Your task to perform on an android device: Open the calendar and show me this week's events Image 0: 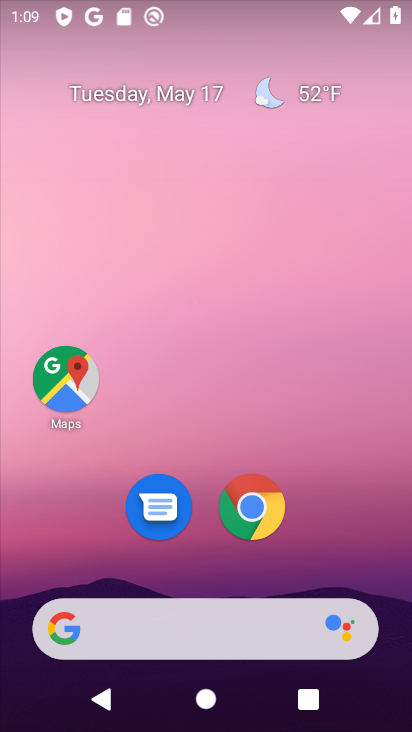
Step 0: drag from (204, 553) to (253, 58)
Your task to perform on an android device: Open the calendar and show me this week's events Image 1: 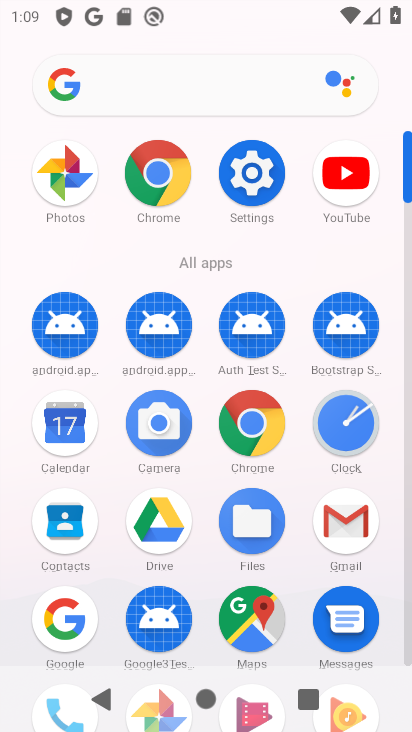
Step 1: click (50, 412)
Your task to perform on an android device: Open the calendar and show me this week's events Image 2: 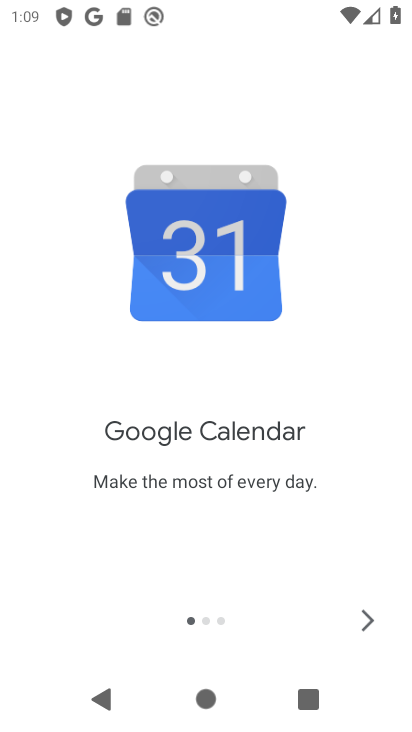
Step 2: click (362, 612)
Your task to perform on an android device: Open the calendar and show me this week's events Image 3: 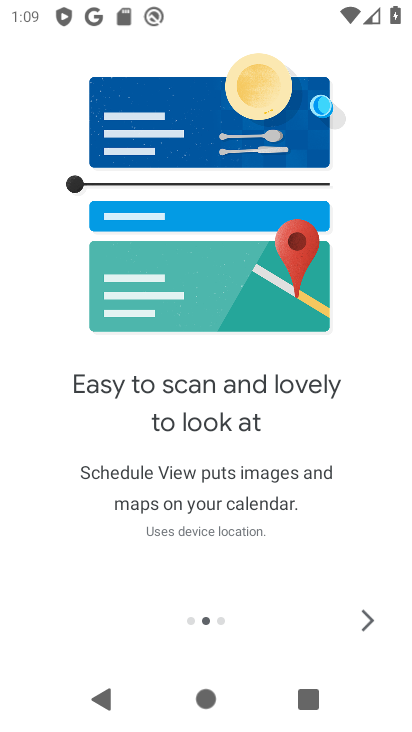
Step 3: click (362, 612)
Your task to perform on an android device: Open the calendar and show me this week's events Image 4: 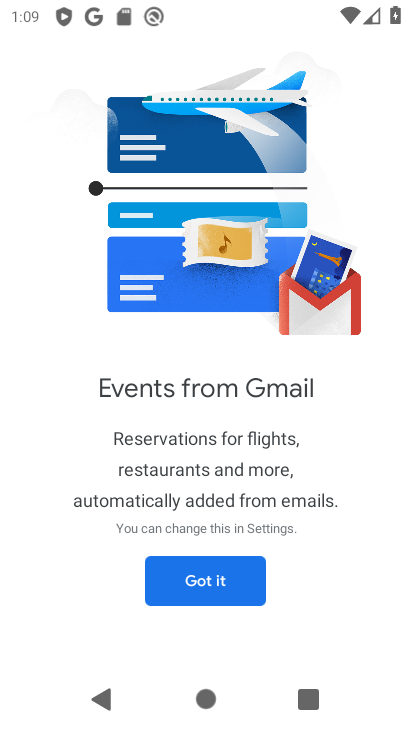
Step 4: click (208, 575)
Your task to perform on an android device: Open the calendar and show me this week's events Image 5: 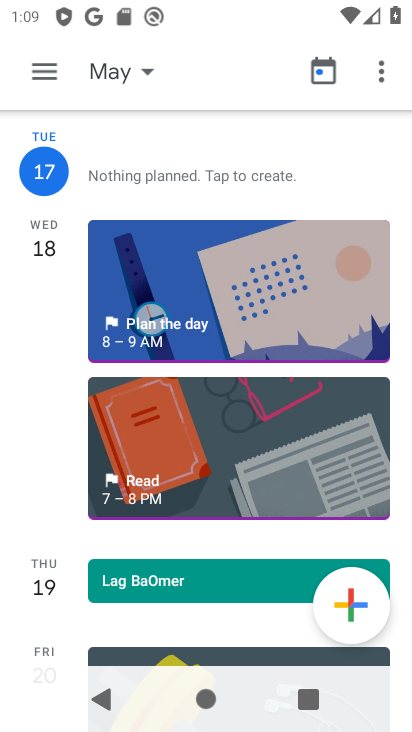
Step 5: click (142, 71)
Your task to perform on an android device: Open the calendar and show me this week's events Image 6: 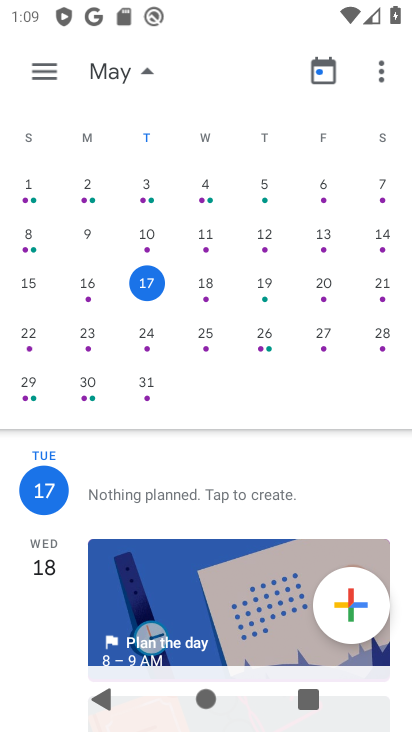
Step 6: click (322, 290)
Your task to perform on an android device: Open the calendar and show me this week's events Image 7: 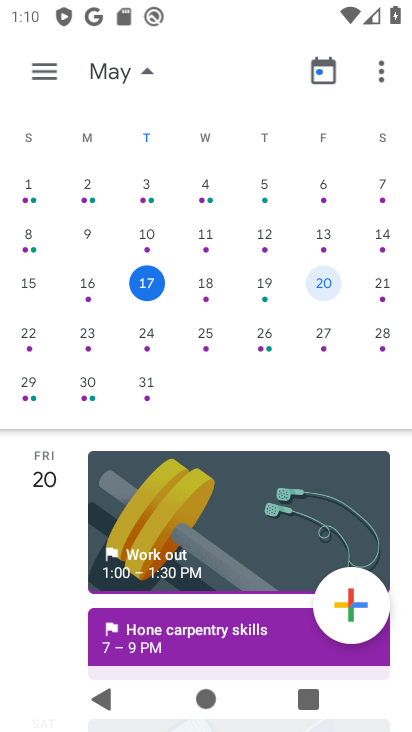
Step 7: task complete